Your task to perform on an android device: move a message to another label in the gmail app Image 0: 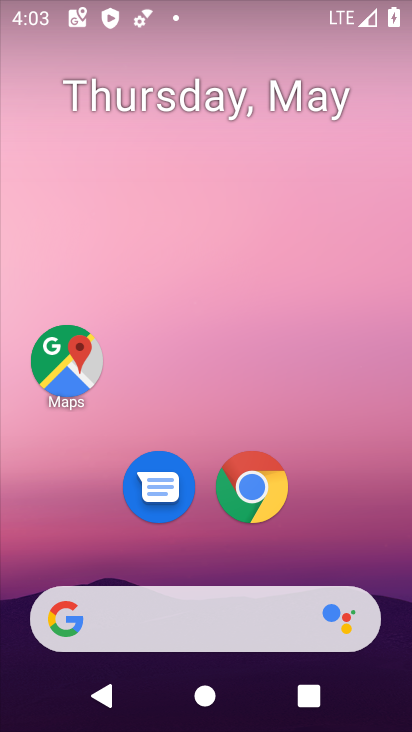
Step 0: drag from (270, 561) to (326, 102)
Your task to perform on an android device: move a message to another label in the gmail app Image 1: 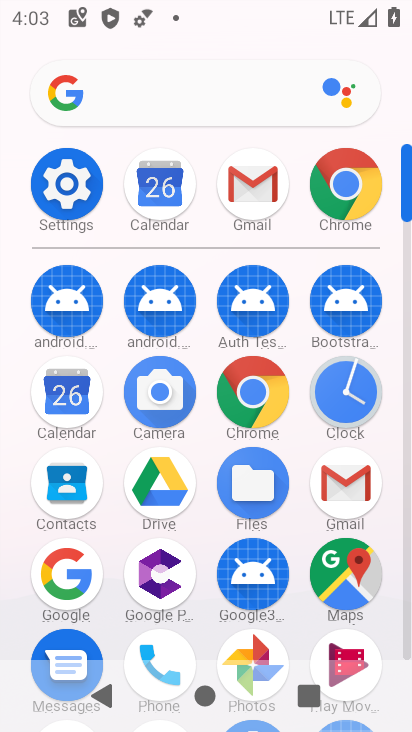
Step 1: click (348, 508)
Your task to perform on an android device: move a message to another label in the gmail app Image 2: 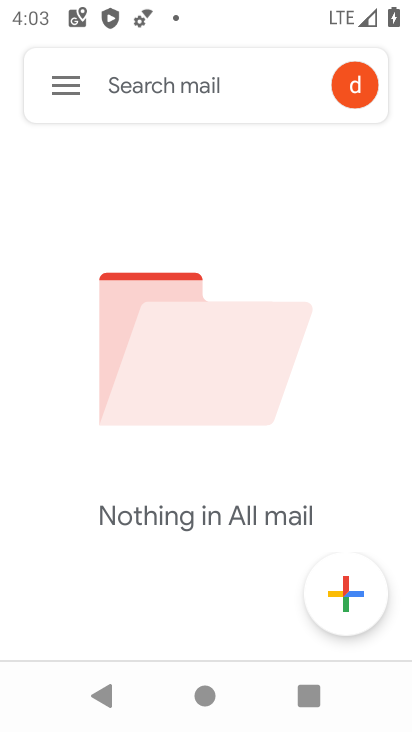
Step 2: click (70, 85)
Your task to perform on an android device: move a message to another label in the gmail app Image 3: 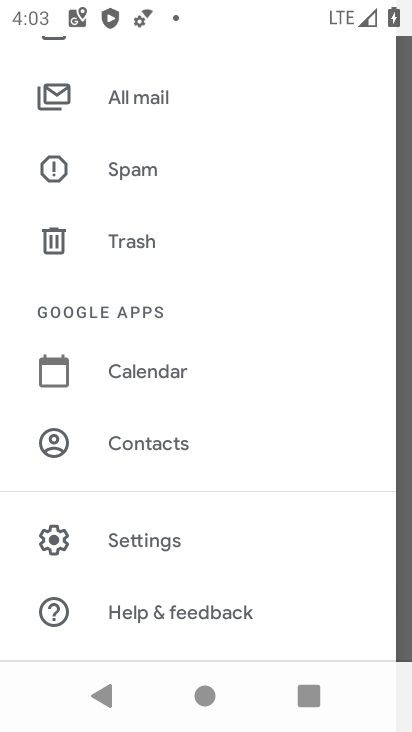
Step 3: click (149, 100)
Your task to perform on an android device: move a message to another label in the gmail app Image 4: 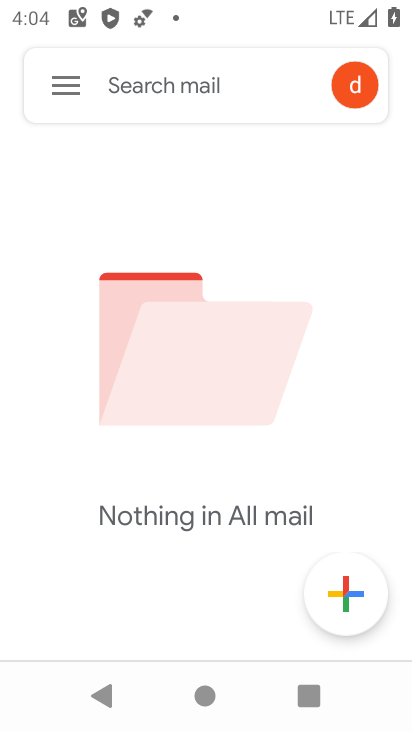
Step 4: task complete